Your task to perform on an android device: Open ESPN.com Image 0: 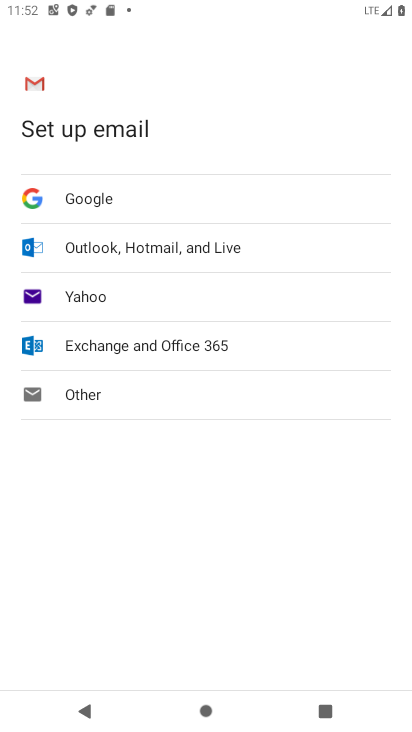
Step 0: press home button
Your task to perform on an android device: Open ESPN.com Image 1: 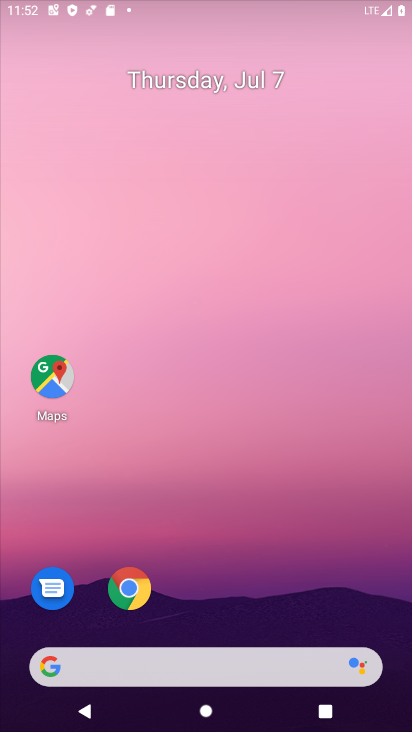
Step 1: drag from (192, 659) to (244, 116)
Your task to perform on an android device: Open ESPN.com Image 2: 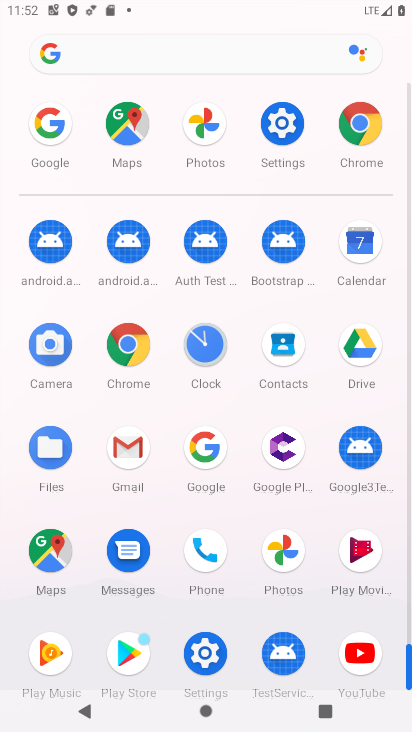
Step 2: click (201, 451)
Your task to perform on an android device: Open ESPN.com Image 3: 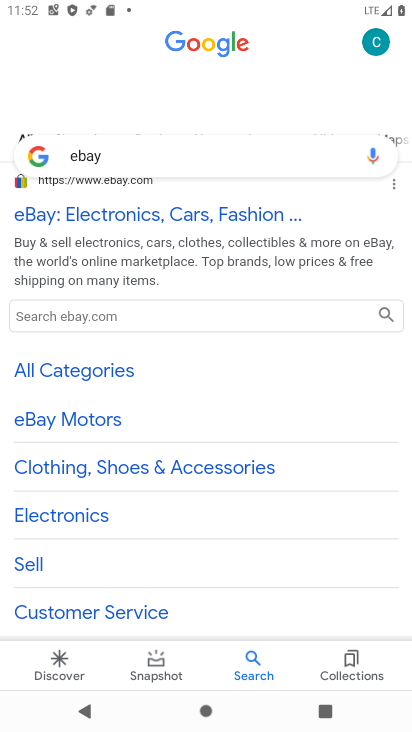
Step 3: click (166, 163)
Your task to perform on an android device: Open ESPN.com Image 4: 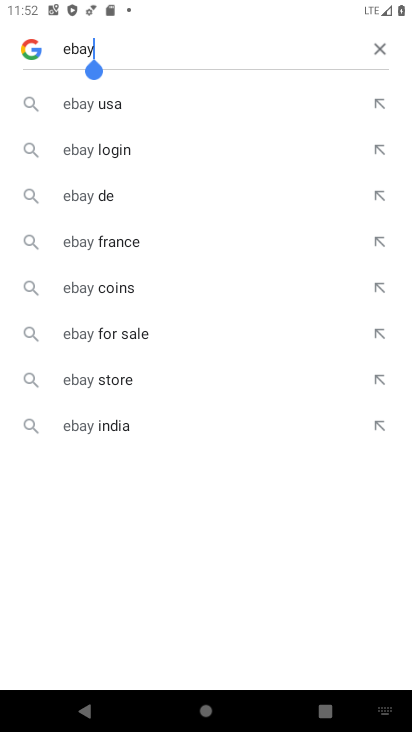
Step 4: click (378, 47)
Your task to perform on an android device: Open ESPN.com Image 5: 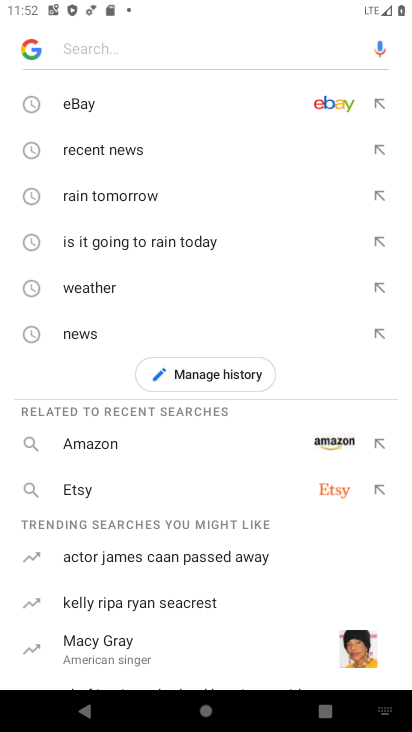
Step 5: type "espn.com"
Your task to perform on an android device: Open ESPN.com Image 6: 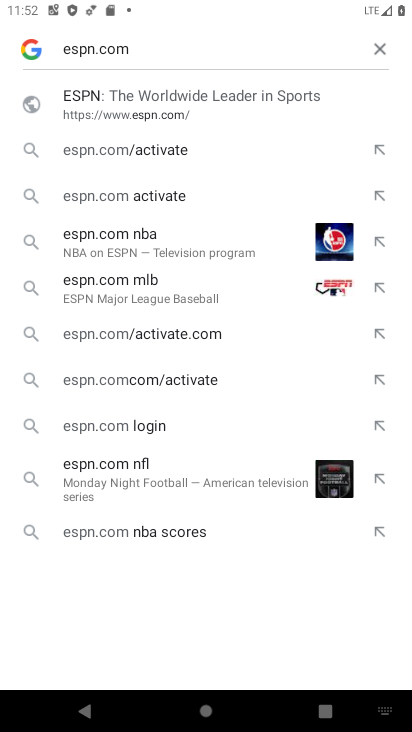
Step 6: click (193, 95)
Your task to perform on an android device: Open ESPN.com Image 7: 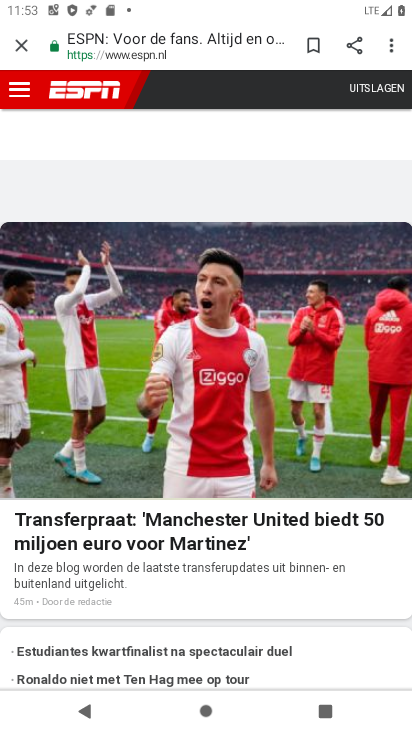
Step 7: task complete